Your task to perform on an android device: delete browsing data in the chrome app Image 0: 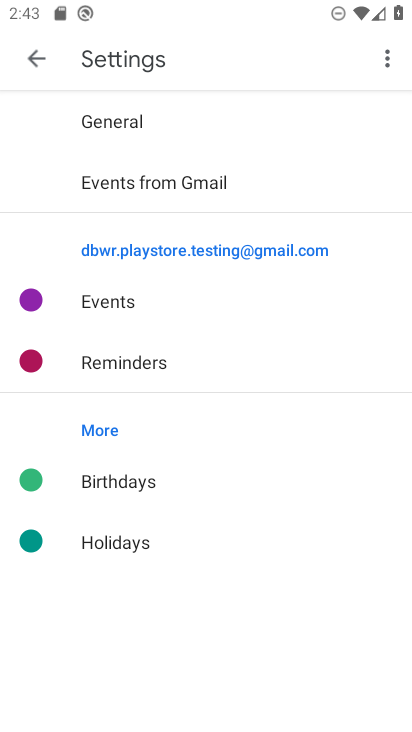
Step 0: press home button
Your task to perform on an android device: delete browsing data in the chrome app Image 1: 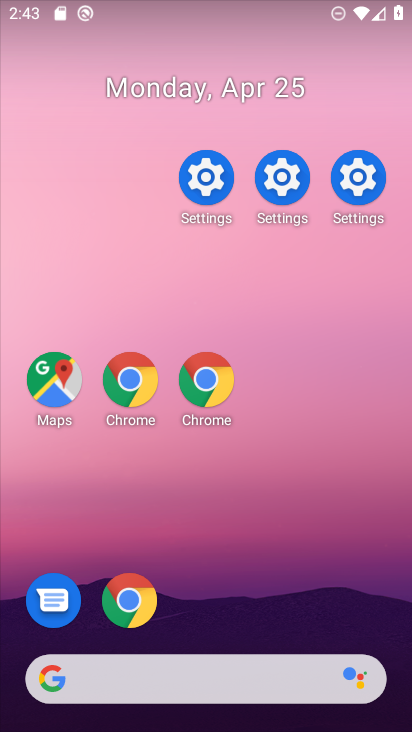
Step 1: drag from (237, 710) to (191, 1)
Your task to perform on an android device: delete browsing data in the chrome app Image 2: 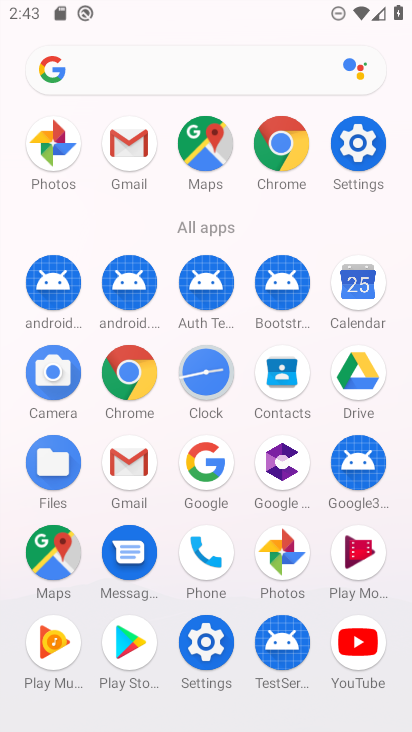
Step 2: click (284, 147)
Your task to perform on an android device: delete browsing data in the chrome app Image 3: 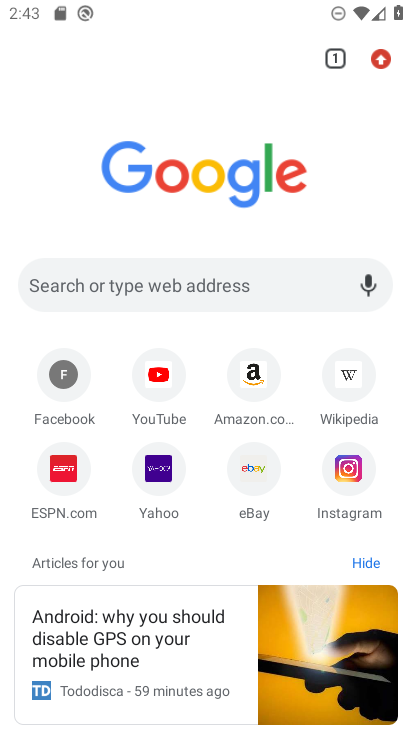
Step 3: drag from (379, 57) to (160, 402)
Your task to perform on an android device: delete browsing data in the chrome app Image 4: 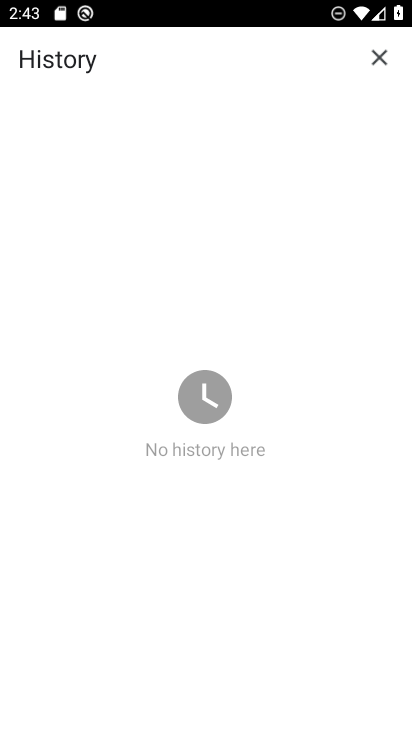
Step 4: click (162, 397)
Your task to perform on an android device: delete browsing data in the chrome app Image 5: 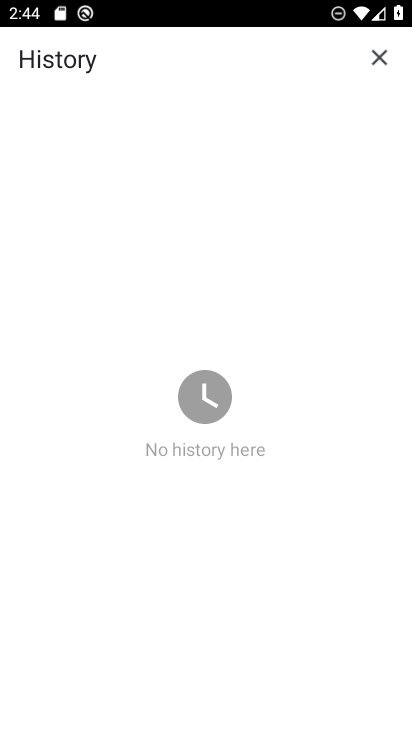
Step 5: task complete